Your task to perform on an android device: move an email to a new category in the gmail app Image 0: 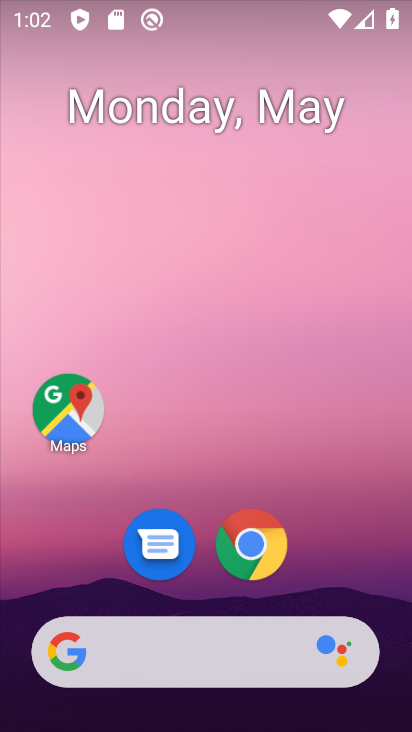
Step 0: drag from (385, 585) to (362, 221)
Your task to perform on an android device: move an email to a new category in the gmail app Image 1: 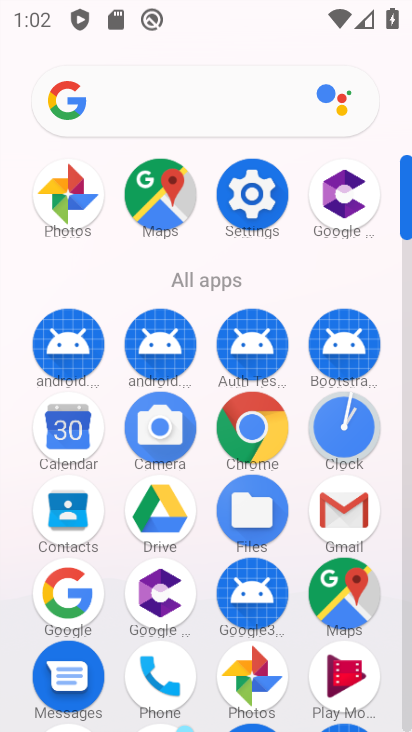
Step 1: click (343, 513)
Your task to perform on an android device: move an email to a new category in the gmail app Image 2: 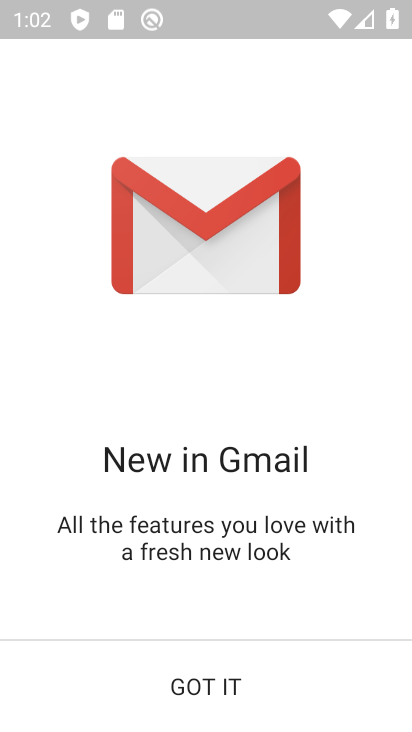
Step 2: click (288, 677)
Your task to perform on an android device: move an email to a new category in the gmail app Image 3: 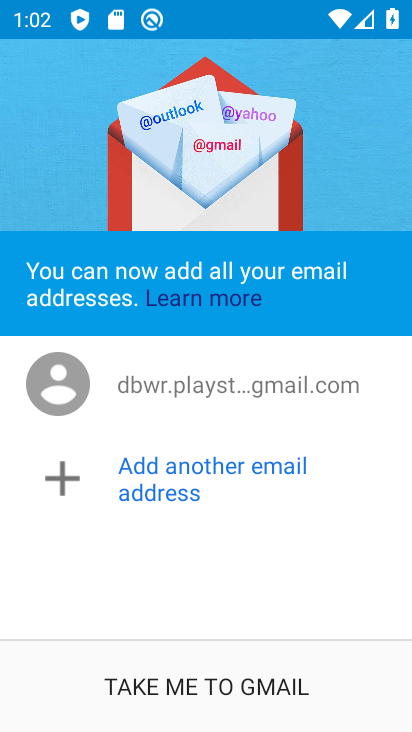
Step 3: click (288, 677)
Your task to perform on an android device: move an email to a new category in the gmail app Image 4: 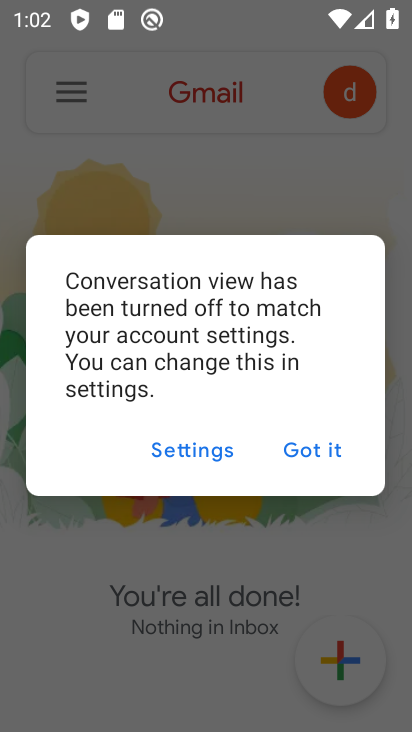
Step 4: click (319, 451)
Your task to perform on an android device: move an email to a new category in the gmail app Image 5: 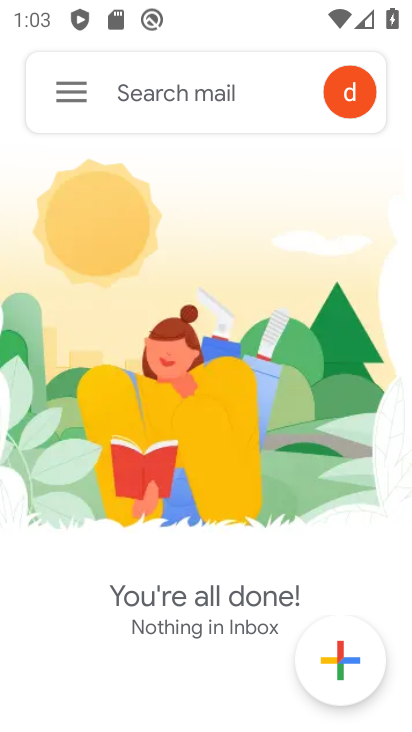
Step 5: task complete